Your task to perform on an android device: turn off translation in the chrome app Image 0: 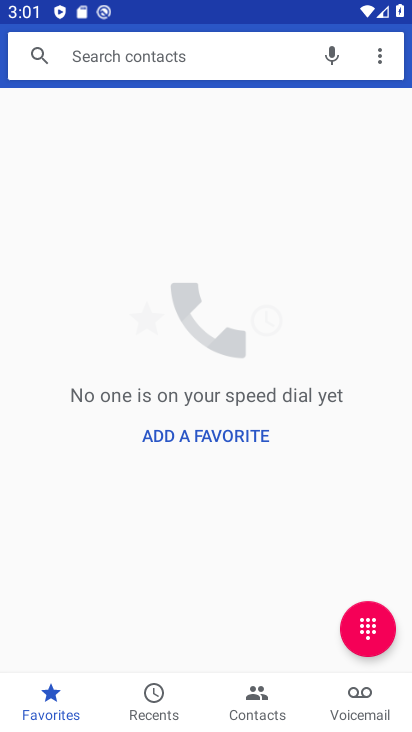
Step 0: press home button
Your task to perform on an android device: turn off translation in the chrome app Image 1: 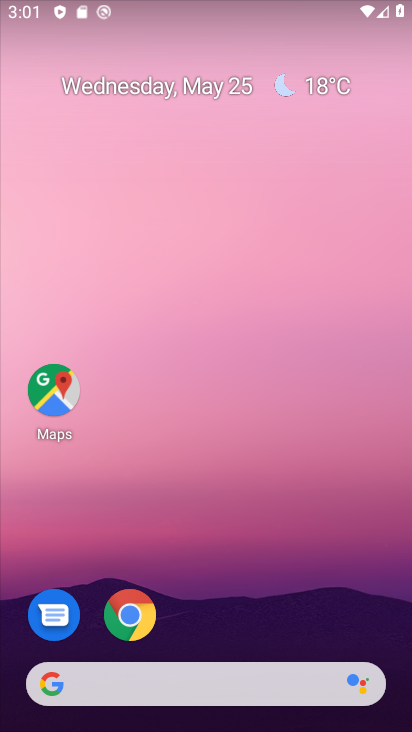
Step 1: drag from (314, 683) to (142, 199)
Your task to perform on an android device: turn off translation in the chrome app Image 2: 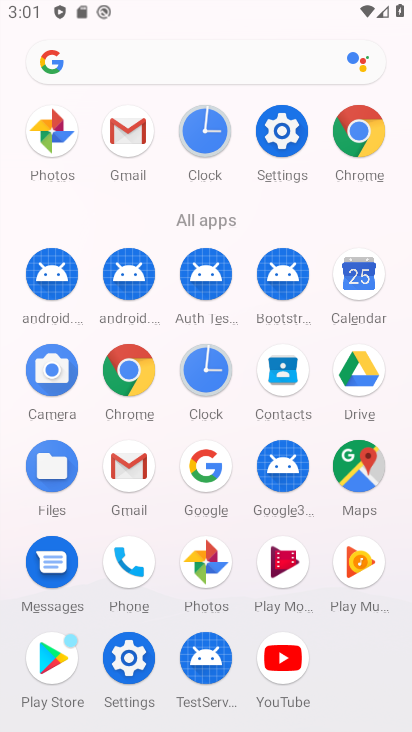
Step 2: click (367, 123)
Your task to perform on an android device: turn off translation in the chrome app Image 3: 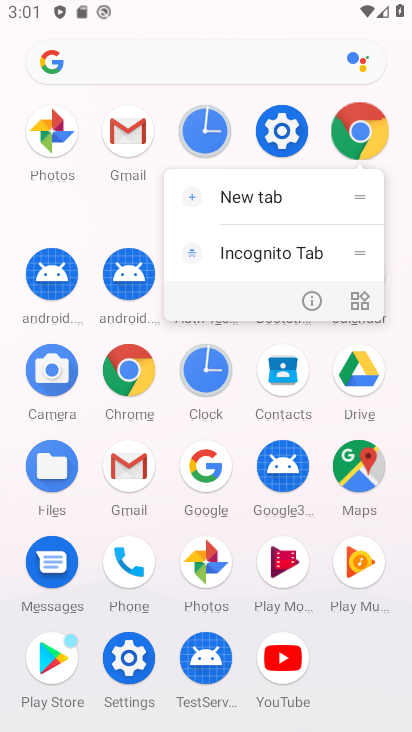
Step 3: click (370, 124)
Your task to perform on an android device: turn off translation in the chrome app Image 4: 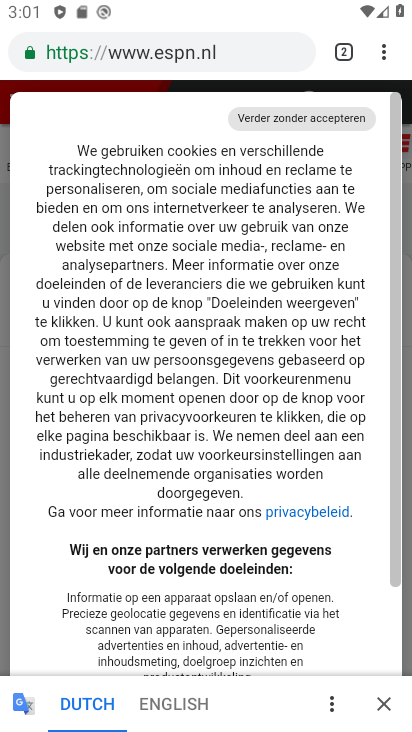
Step 4: drag from (381, 51) to (201, 624)
Your task to perform on an android device: turn off translation in the chrome app Image 5: 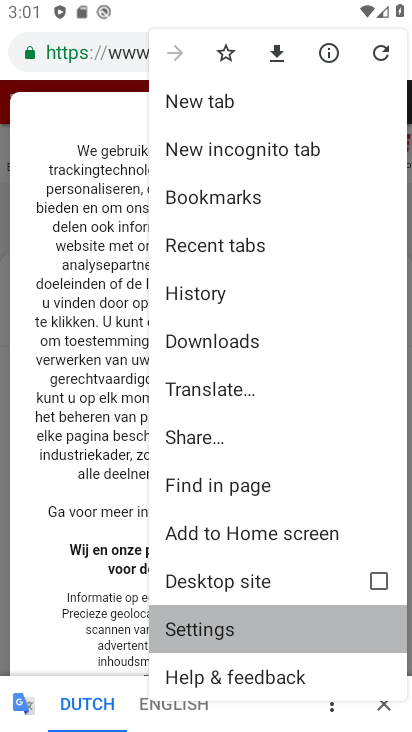
Step 5: click (201, 624)
Your task to perform on an android device: turn off translation in the chrome app Image 6: 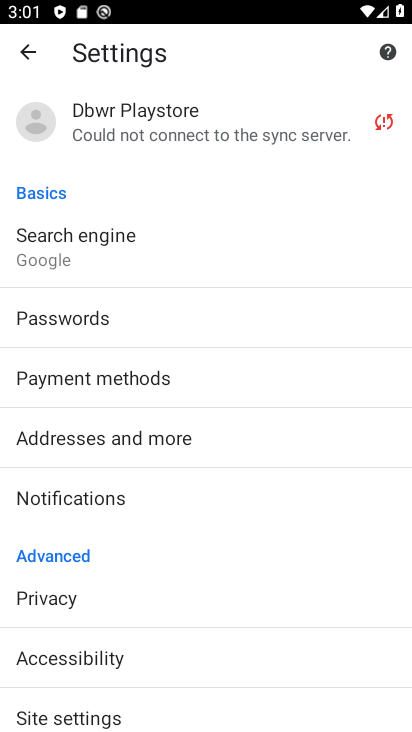
Step 6: drag from (108, 577) to (114, 326)
Your task to perform on an android device: turn off translation in the chrome app Image 7: 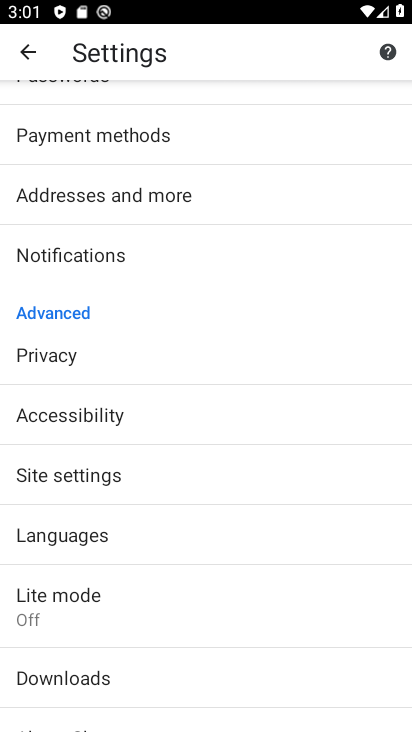
Step 7: click (56, 532)
Your task to perform on an android device: turn off translation in the chrome app Image 8: 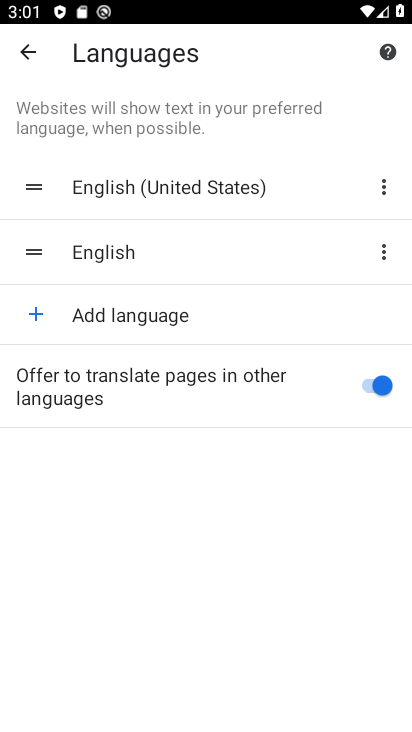
Step 8: click (374, 382)
Your task to perform on an android device: turn off translation in the chrome app Image 9: 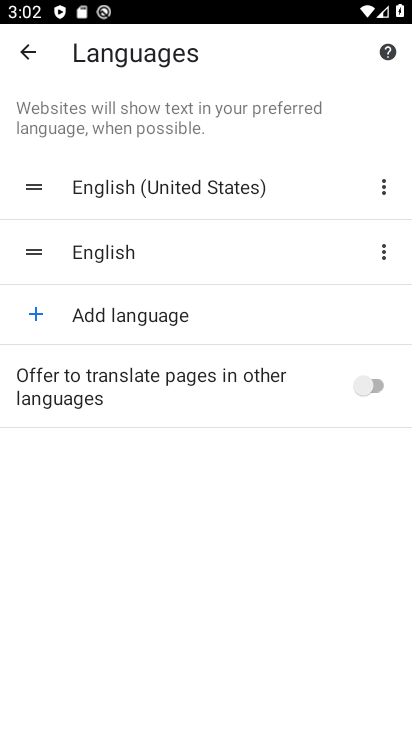
Step 9: task complete